Your task to perform on an android device: Go to sound settings Image 0: 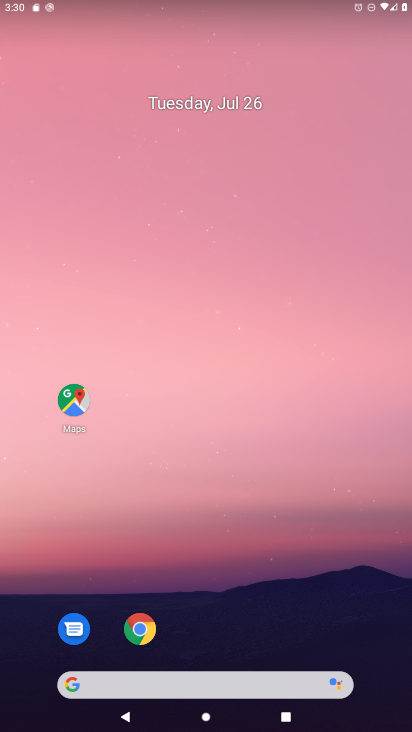
Step 0: drag from (244, 619) to (212, 158)
Your task to perform on an android device: Go to sound settings Image 1: 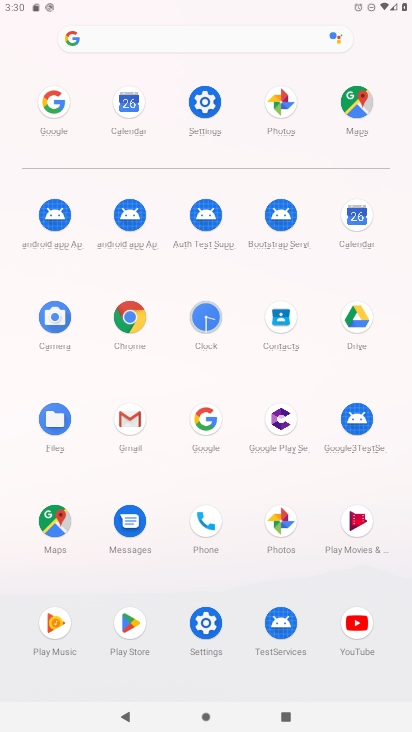
Step 1: click (203, 113)
Your task to perform on an android device: Go to sound settings Image 2: 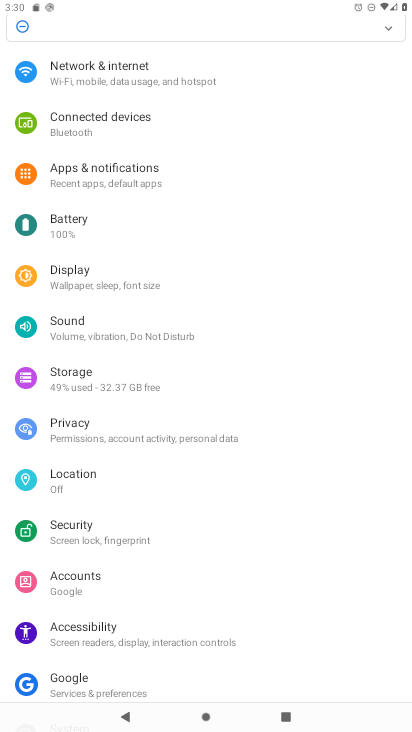
Step 2: click (100, 332)
Your task to perform on an android device: Go to sound settings Image 3: 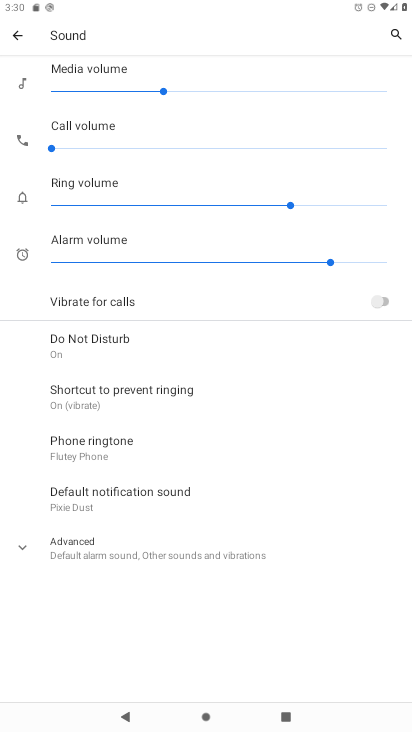
Step 3: task complete